Your task to perform on an android device: Check the weather Image 0: 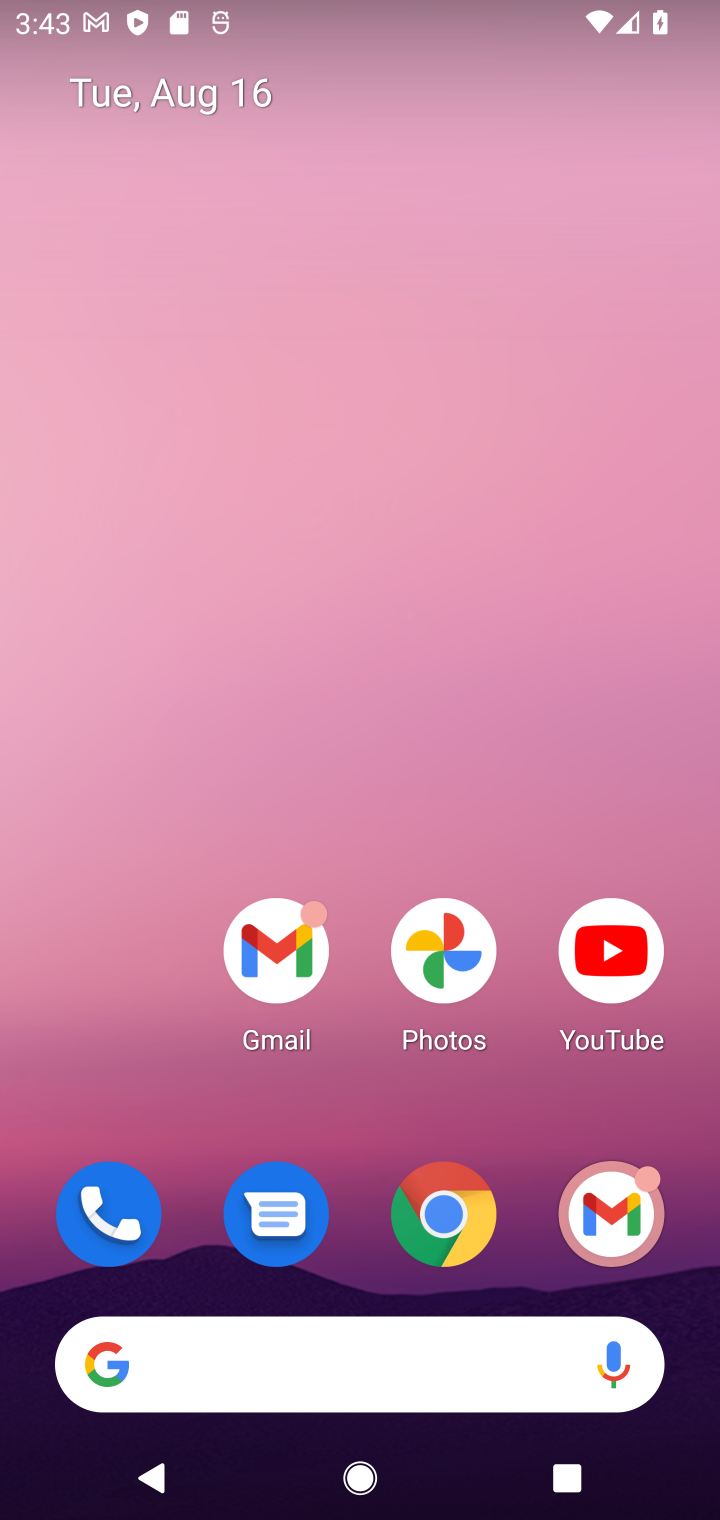
Step 0: drag from (422, 1267) to (215, 601)
Your task to perform on an android device: Check the weather Image 1: 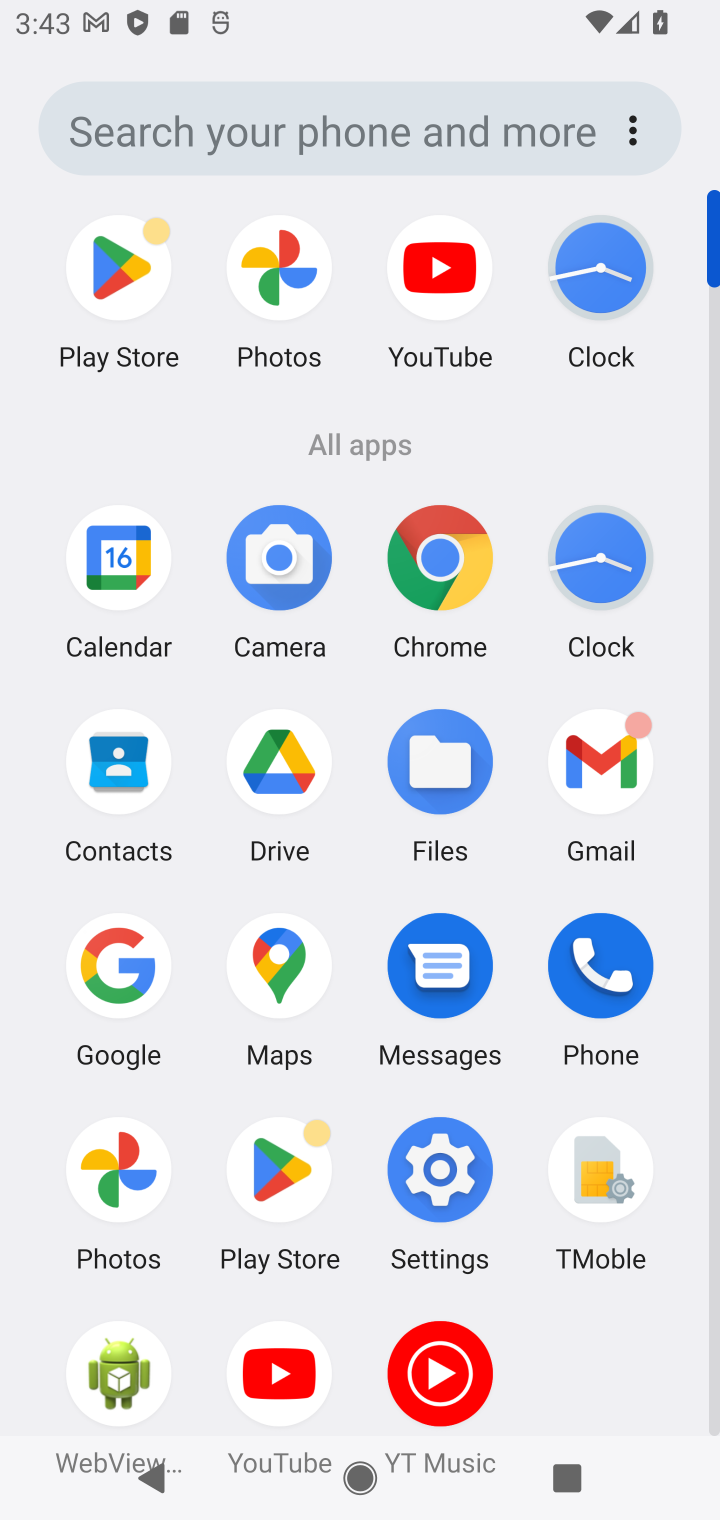
Step 1: click (119, 965)
Your task to perform on an android device: Check the weather Image 2: 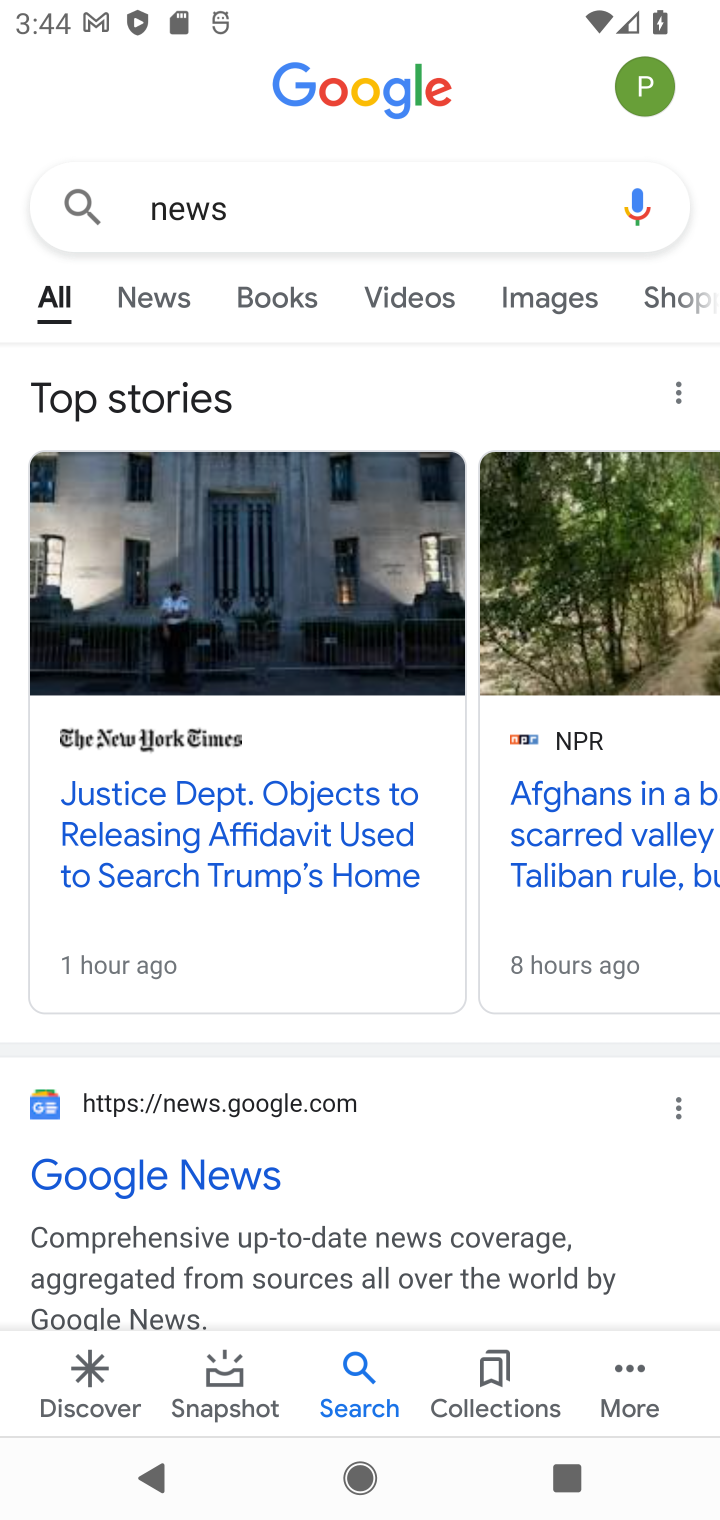
Step 2: task complete